Your task to perform on an android device: Open privacy settings Image 0: 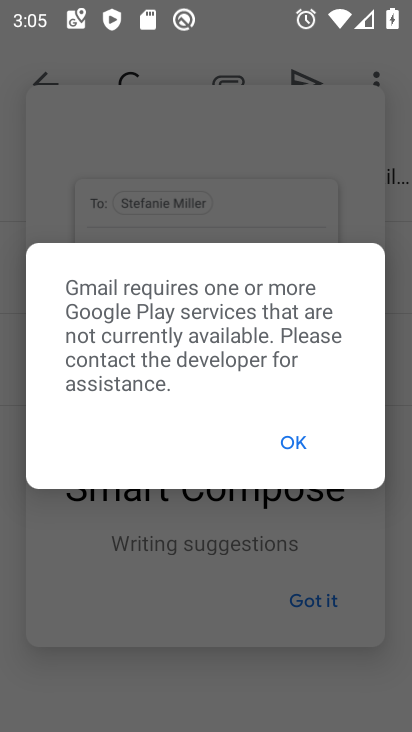
Step 0: click (302, 446)
Your task to perform on an android device: Open privacy settings Image 1: 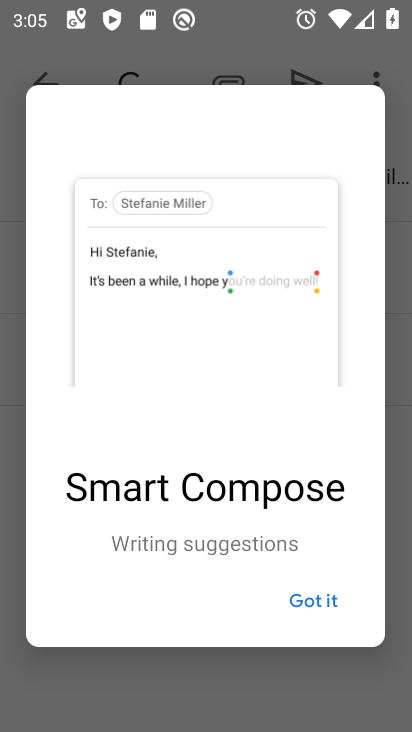
Step 1: press home button
Your task to perform on an android device: Open privacy settings Image 2: 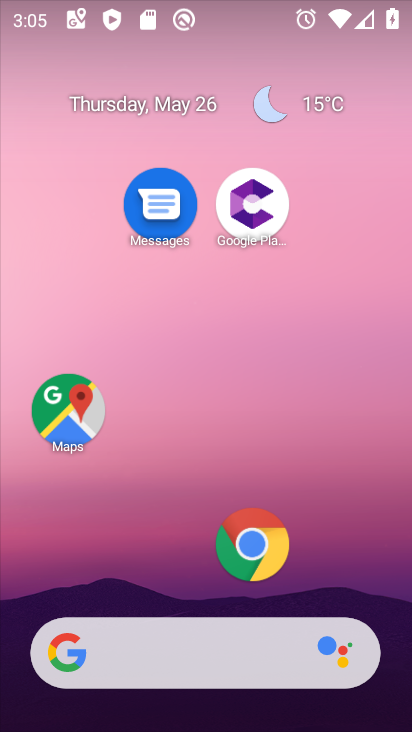
Step 2: drag from (166, 583) to (408, 300)
Your task to perform on an android device: Open privacy settings Image 3: 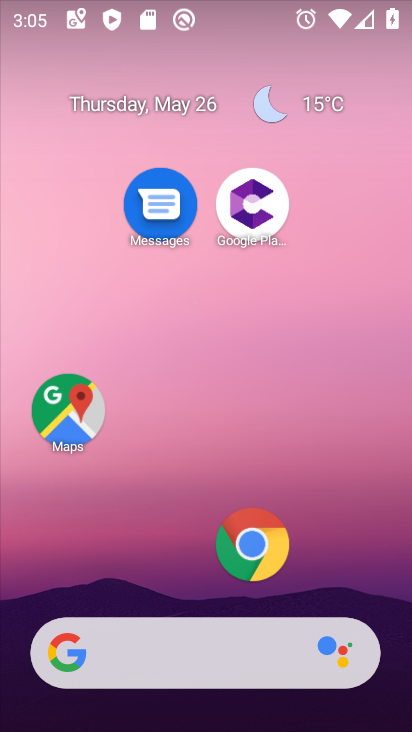
Step 3: click (348, 183)
Your task to perform on an android device: Open privacy settings Image 4: 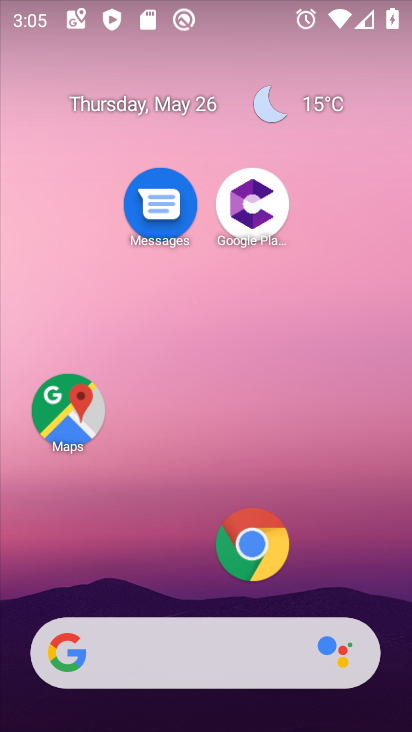
Step 4: drag from (141, 602) to (142, 155)
Your task to perform on an android device: Open privacy settings Image 5: 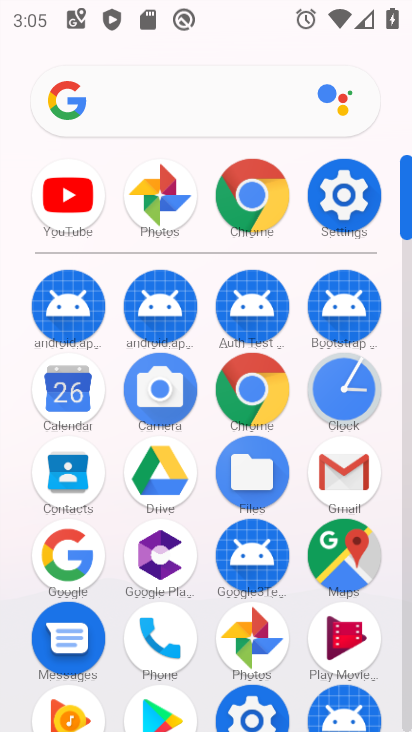
Step 5: click (338, 179)
Your task to perform on an android device: Open privacy settings Image 6: 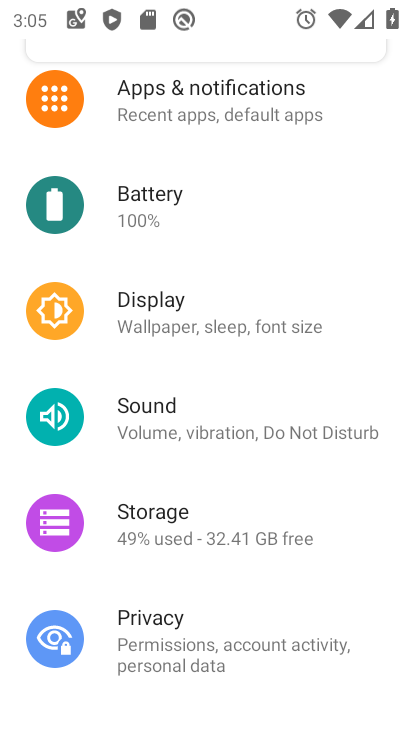
Step 6: click (230, 630)
Your task to perform on an android device: Open privacy settings Image 7: 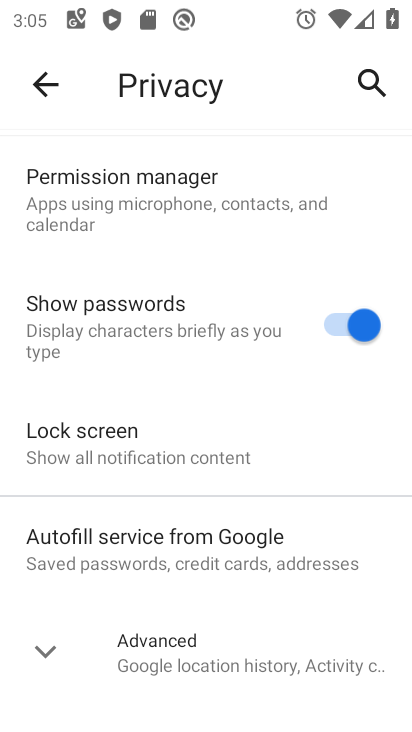
Step 7: task complete